Your task to perform on an android device: Go to battery settings Image 0: 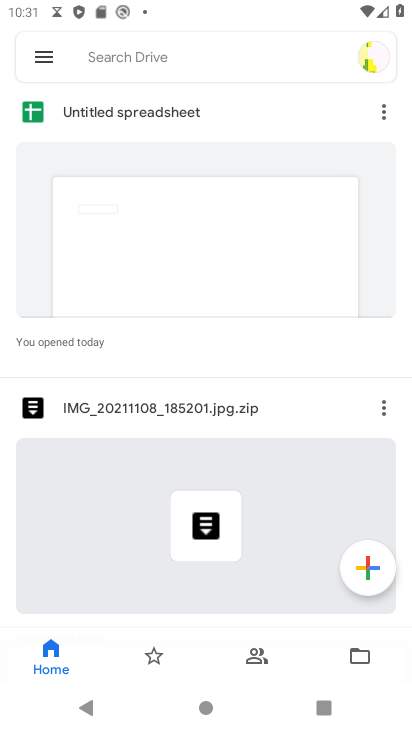
Step 0: press home button
Your task to perform on an android device: Go to battery settings Image 1: 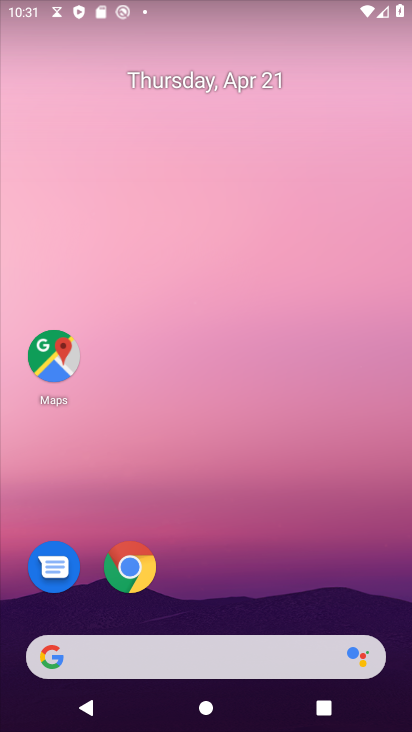
Step 1: drag from (225, 522) to (404, 88)
Your task to perform on an android device: Go to battery settings Image 2: 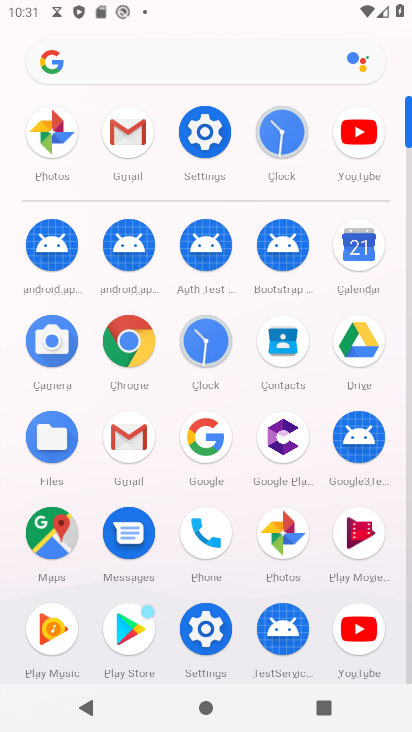
Step 2: click (216, 129)
Your task to perform on an android device: Go to battery settings Image 3: 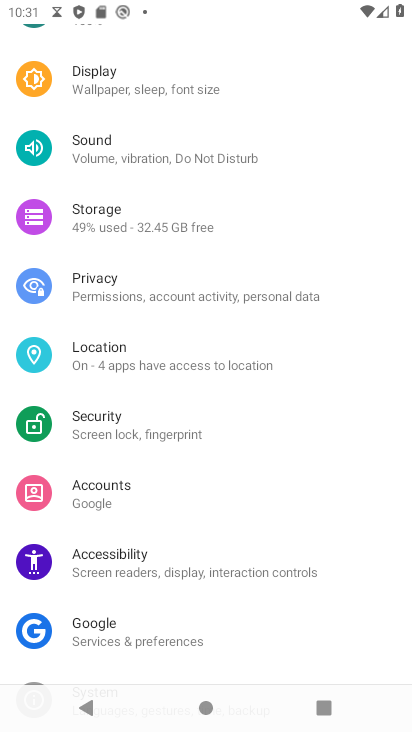
Step 3: drag from (176, 266) to (148, 662)
Your task to perform on an android device: Go to battery settings Image 4: 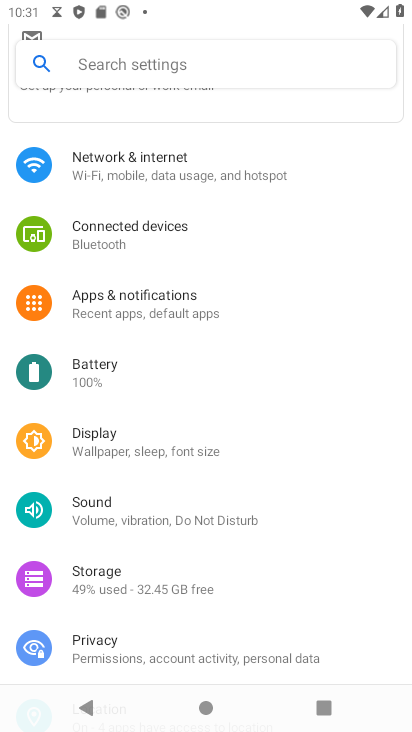
Step 4: click (117, 376)
Your task to perform on an android device: Go to battery settings Image 5: 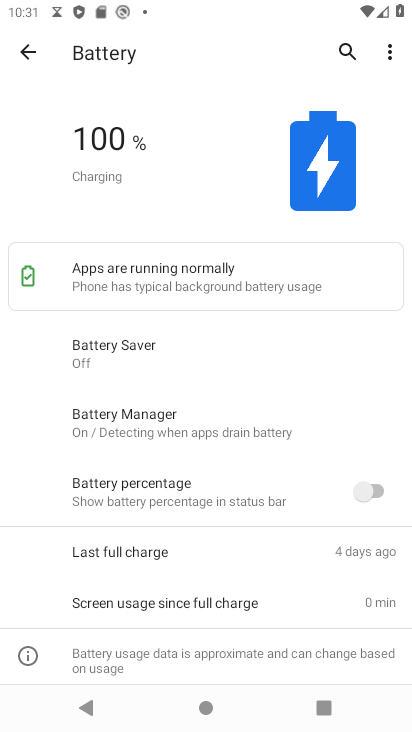
Step 5: task complete